Your task to perform on an android device: toggle sleep mode Image 0: 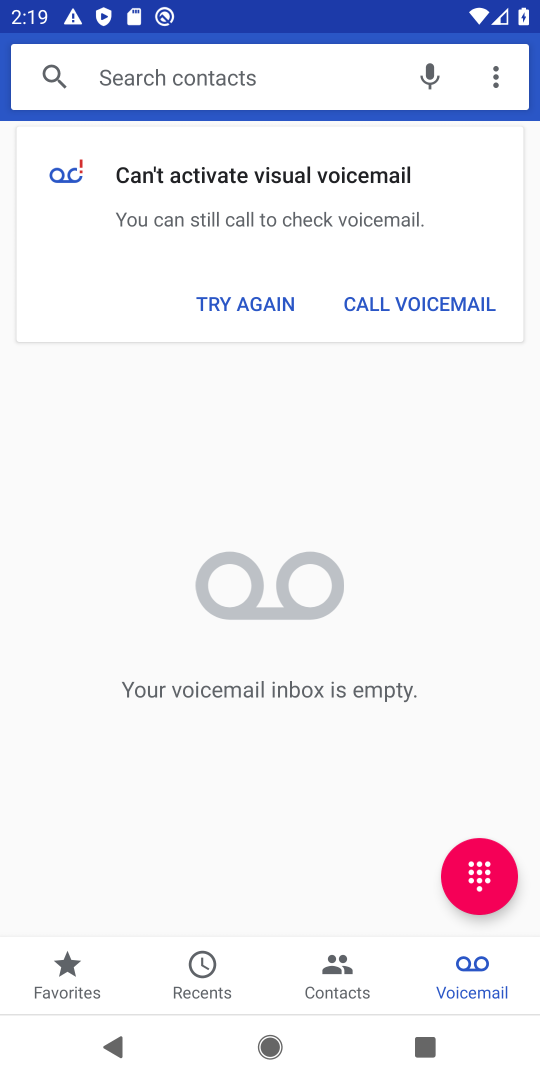
Step 0: press back button
Your task to perform on an android device: toggle sleep mode Image 1: 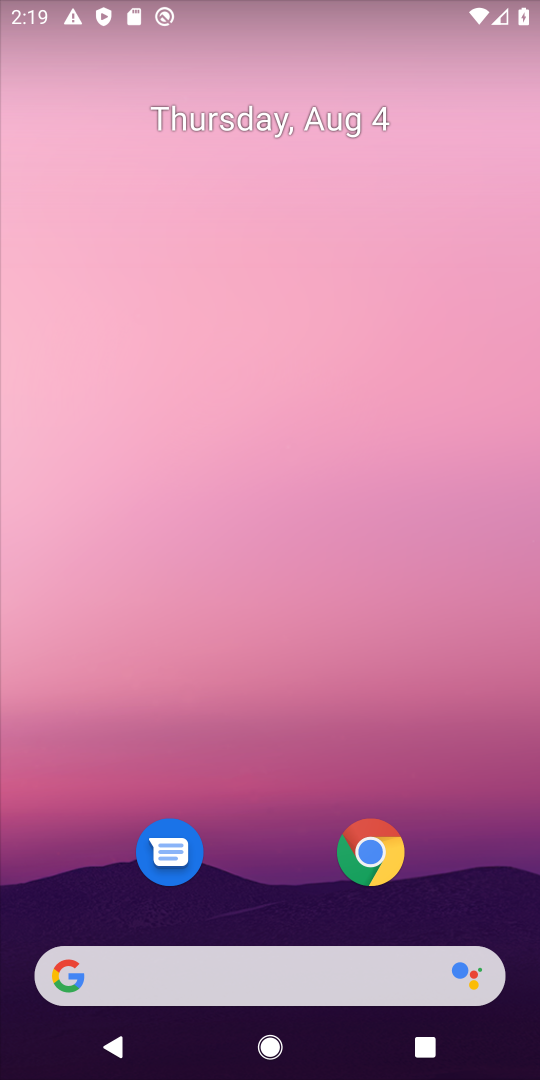
Step 1: drag from (252, 841) to (320, 77)
Your task to perform on an android device: toggle sleep mode Image 2: 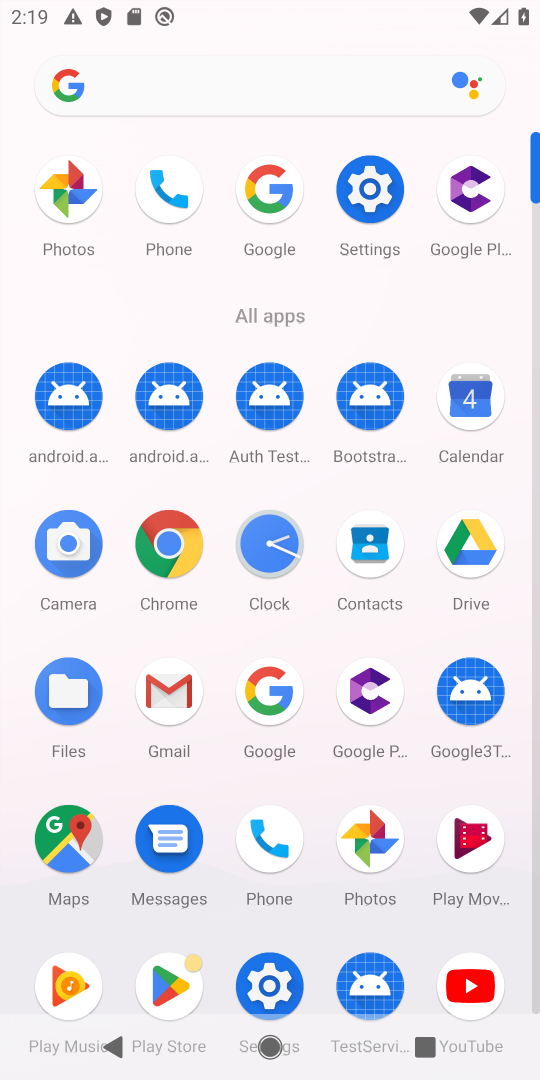
Step 2: click (365, 187)
Your task to perform on an android device: toggle sleep mode Image 3: 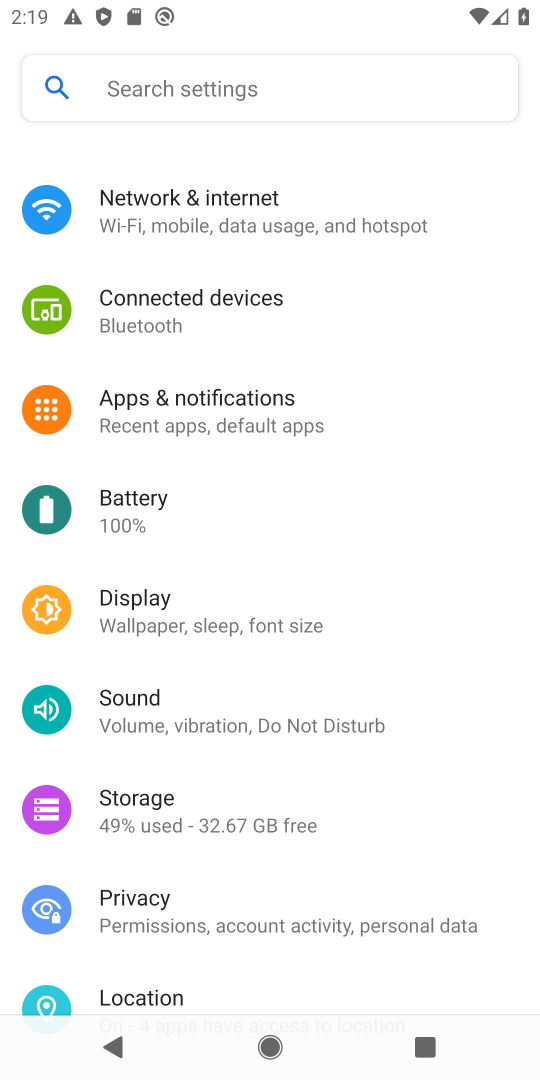
Step 3: click (178, 96)
Your task to perform on an android device: toggle sleep mode Image 4: 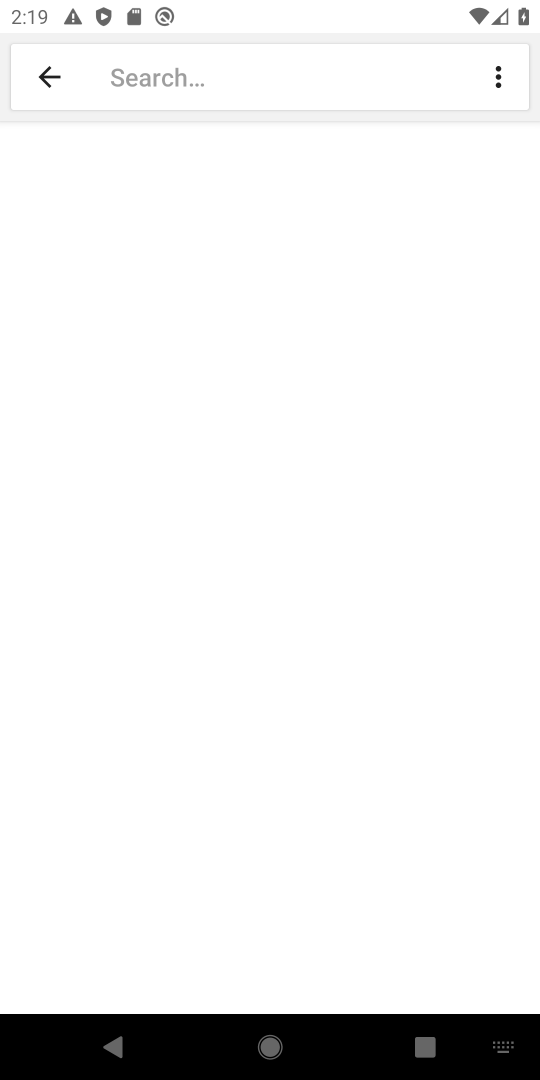
Step 4: type "sleep mode"
Your task to perform on an android device: toggle sleep mode Image 5: 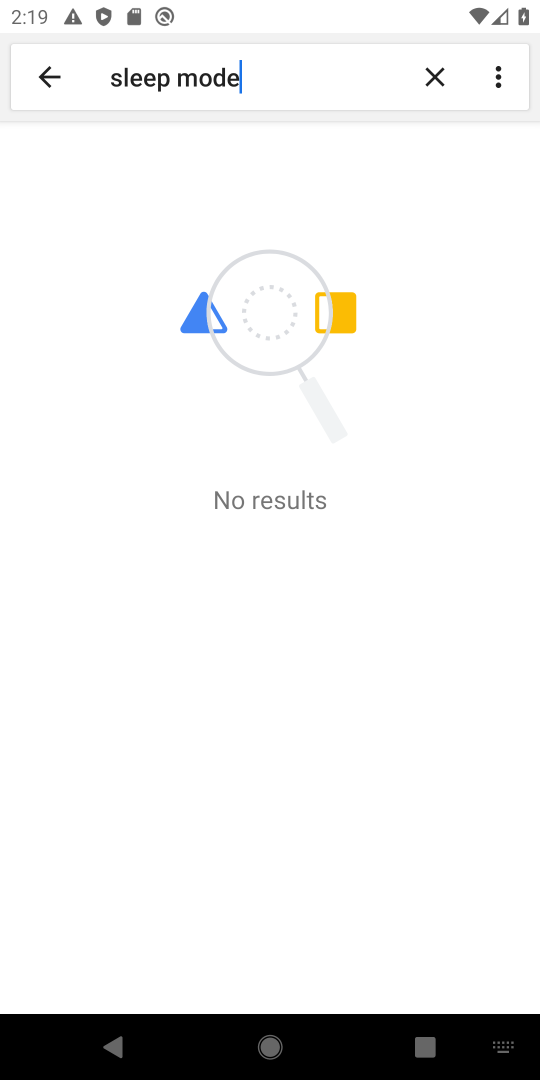
Step 5: task complete